Your task to perform on an android device: Go to accessibility settings Image 0: 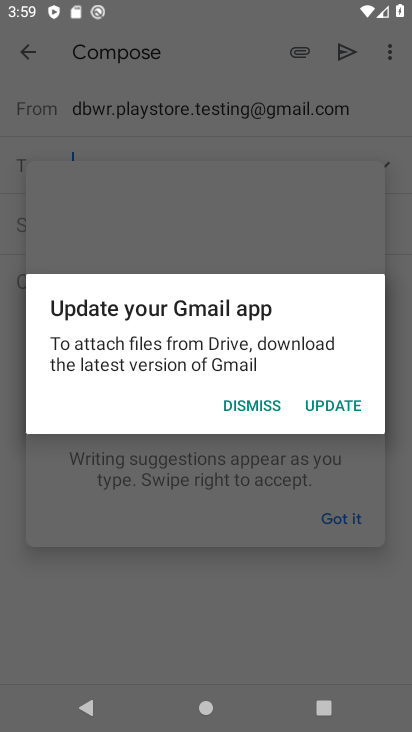
Step 0: press home button
Your task to perform on an android device: Go to accessibility settings Image 1: 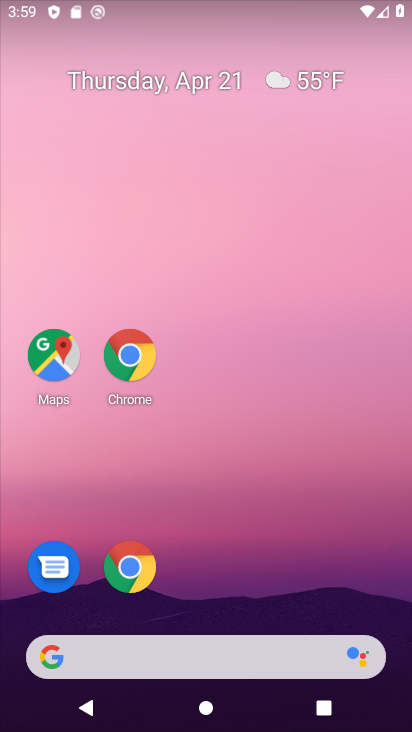
Step 1: drag from (258, 497) to (151, 92)
Your task to perform on an android device: Go to accessibility settings Image 2: 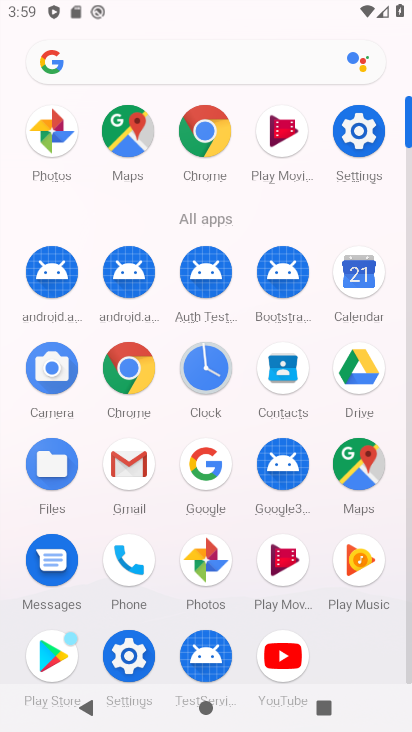
Step 2: click (365, 131)
Your task to perform on an android device: Go to accessibility settings Image 3: 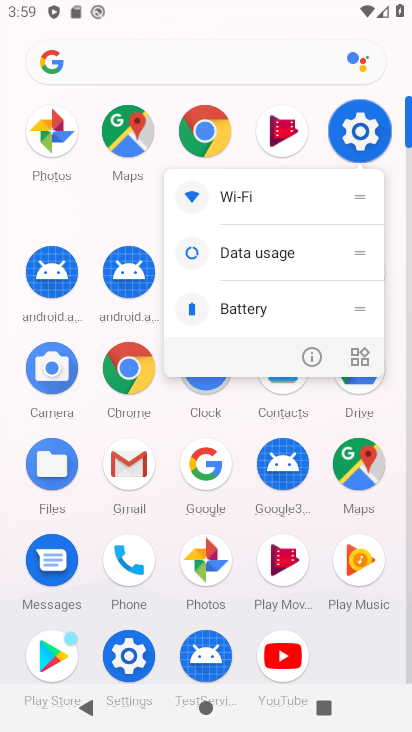
Step 3: click (365, 131)
Your task to perform on an android device: Go to accessibility settings Image 4: 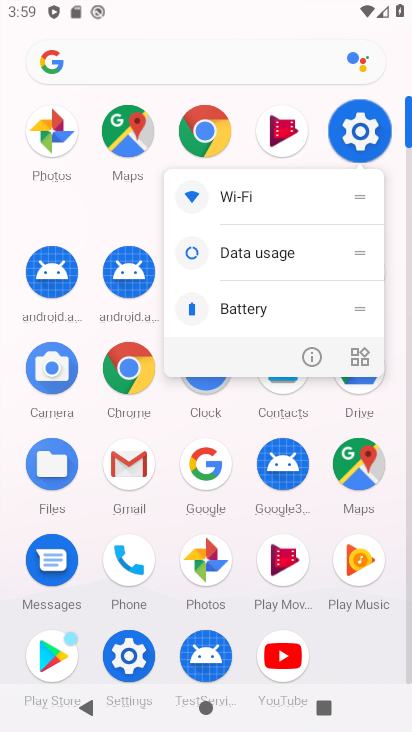
Step 4: click (363, 129)
Your task to perform on an android device: Go to accessibility settings Image 5: 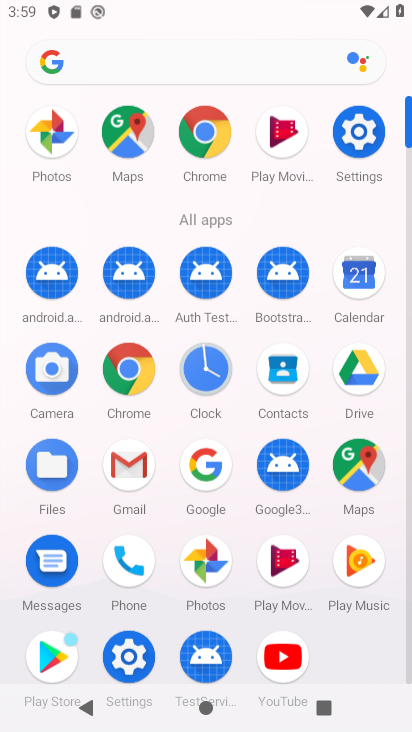
Step 5: click (359, 127)
Your task to perform on an android device: Go to accessibility settings Image 6: 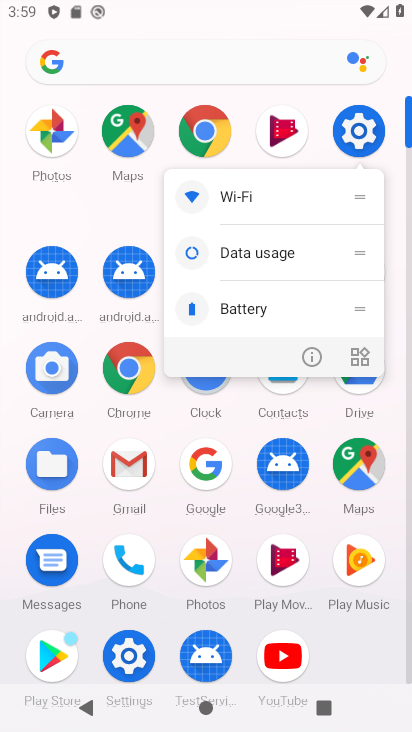
Step 6: drag from (361, 128) to (321, 111)
Your task to perform on an android device: Go to accessibility settings Image 7: 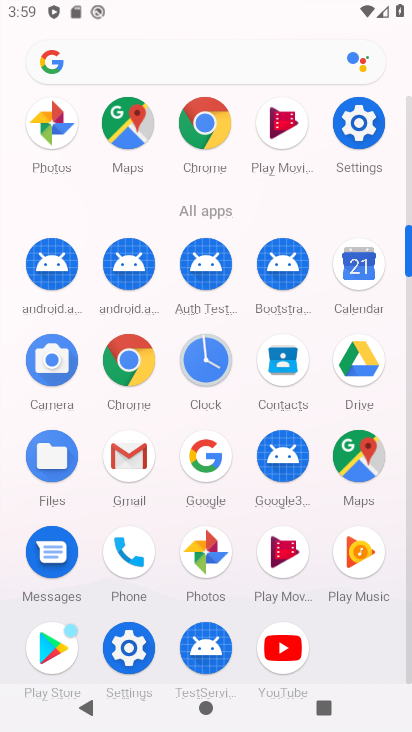
Step 7: click (356, 127)
Your task to perform on an android device: Go to accessibility settings Image 8: 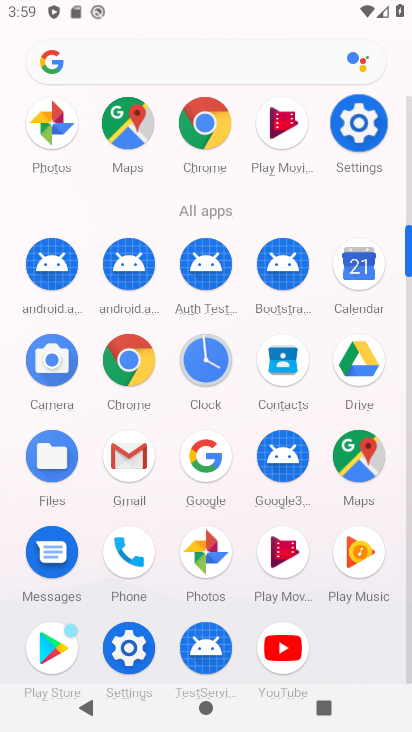
Step 8: click (357, 126)
Your task to perform on an android device: Go to accessibility settings Image 9: 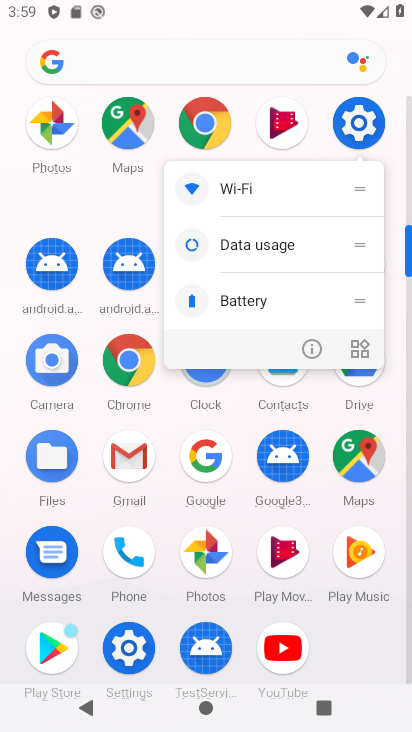
Step 9: click (357, 126)
Your task to perform on an android device: Go to accessibility settings Image 10: 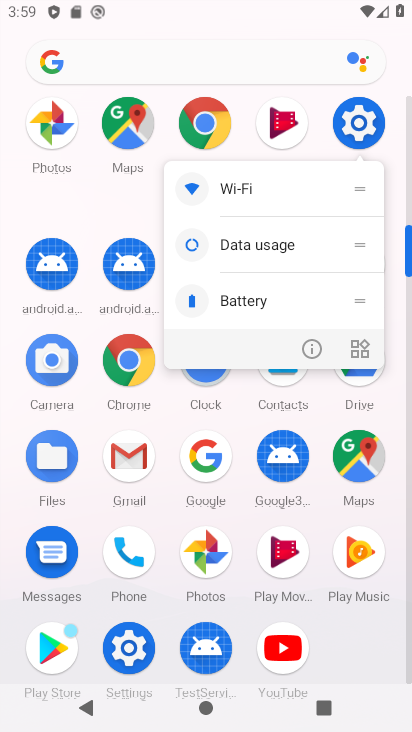
Step 10: click (357, 126)
Your task to perform on an android device: Go to accessibility settings Image 11: 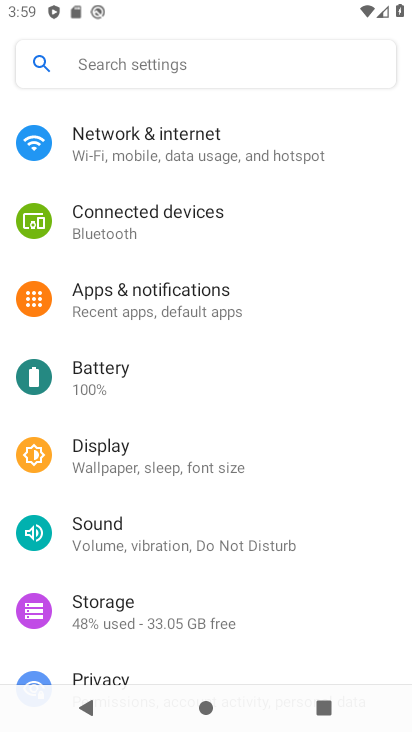
Step 11: click (358, 125)
Your task to perform on an android device: Go to accessibility settings Image 12: 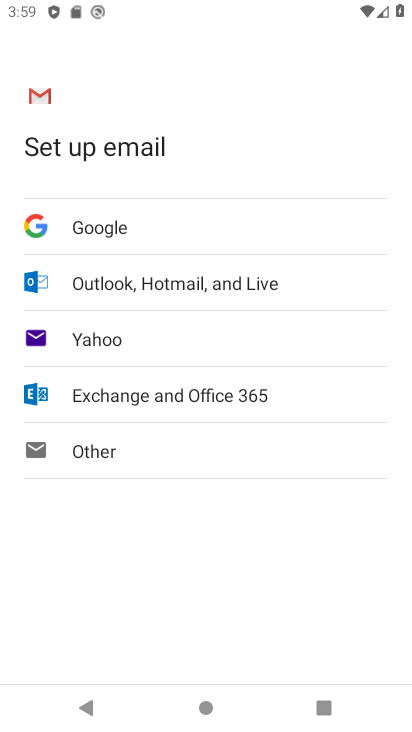
Step 12: press back button
Your task to perform on an android device: Go to accessibility settings Image 13: 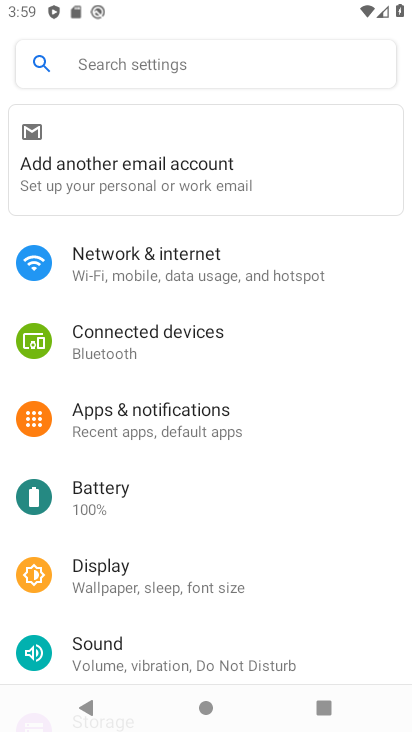
Step 13: drag from (221, 629) to (163, 175)
Your task to perform on an android device: Go to accessibility settings Image 14: 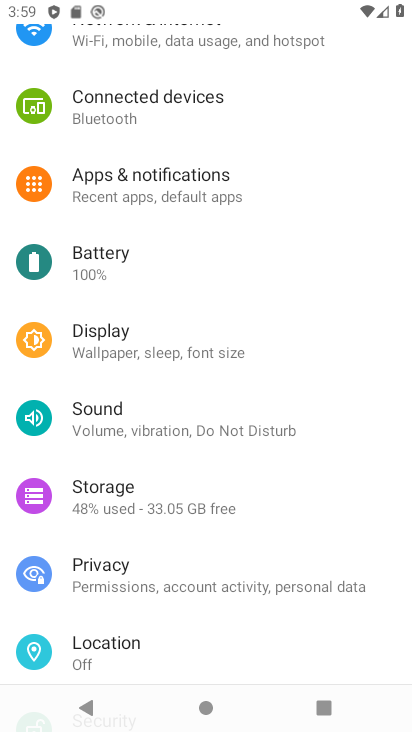
Step 14: click (205, 100)
Your task to perform on an android device: Go to accessibility settings Image 15: 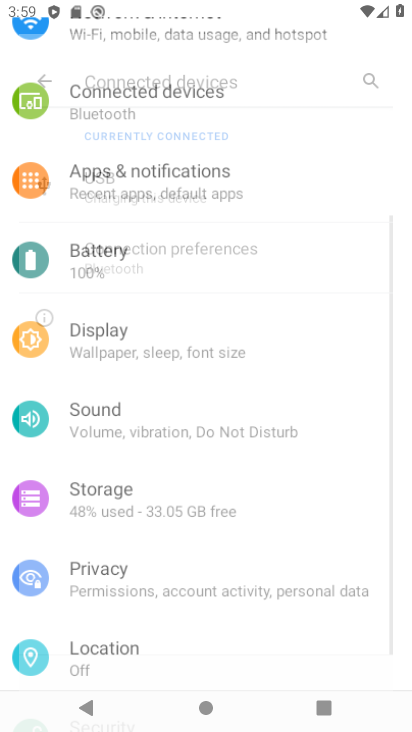
Step 15: drag from (180, 258) to (180, 27)
Your task to perform on an android device: Go to accessibility settings Image 16: 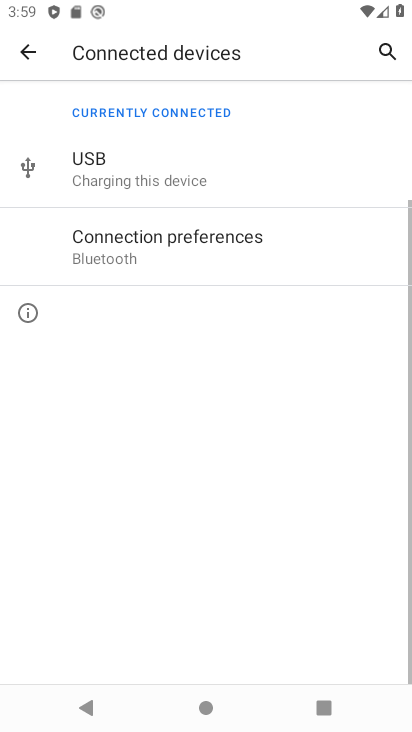
Step 16: click (18, 48)
Your task to perform on an android device: Go to accessibility settings Image 17: 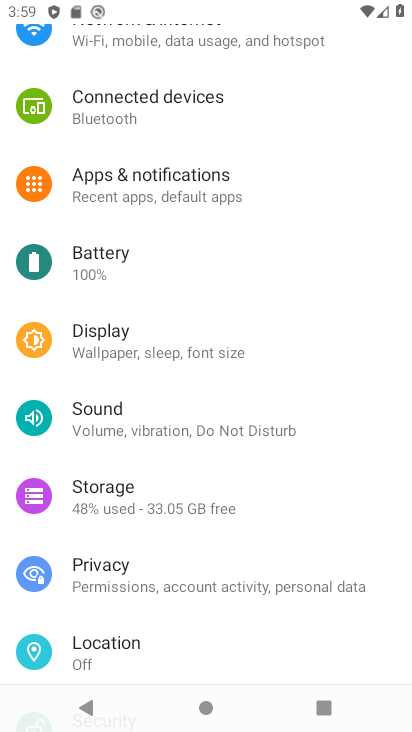
Step 17: drag from (176, 506) to (201, 103)
Your task to perform on an android device: Go to accessibility settings Image 18: 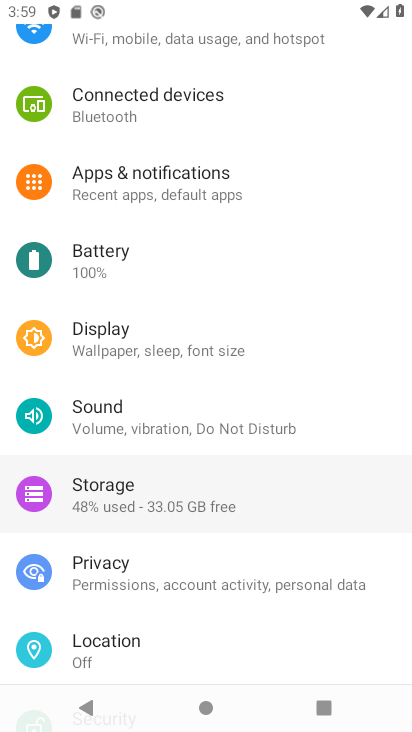
Step 18: drag from (225, 500) to (188, 134)
Your task to perform on an android device: Go to accessibility settings Image 19: 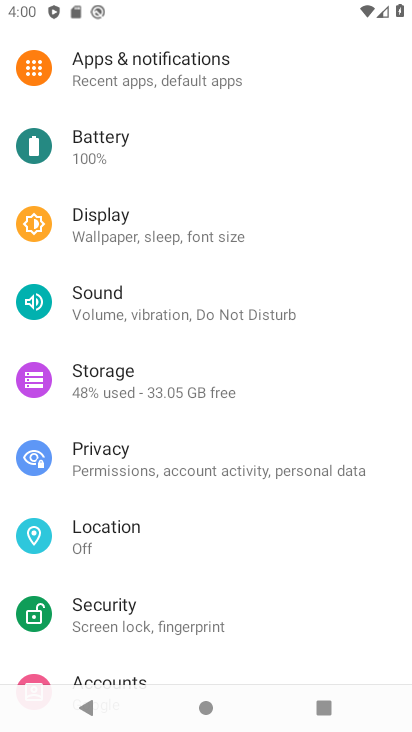
Step 19: drag from (145, 516) to (94, 101)
Your task to perform on an android device: Go to accessibility settings Image 20: 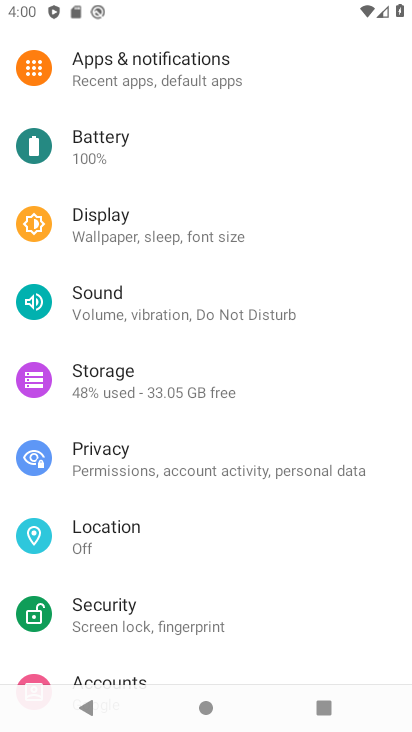
Step 20: drag from (151, 398) to (102, 52)
Your task to perform on an android device: Go to accessibility settings Image 21: 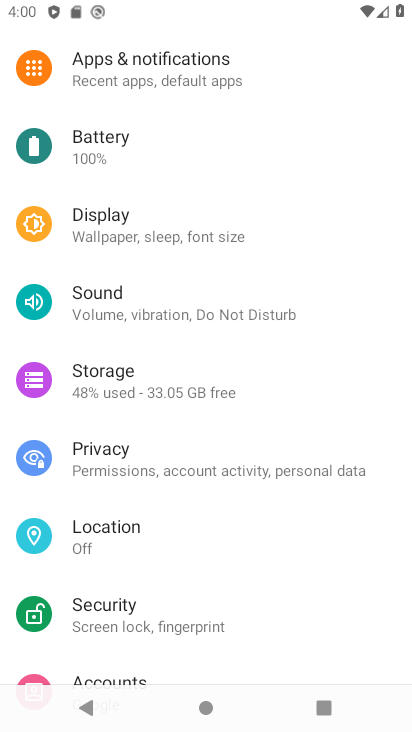
Step 21: drag from (195, 467) to (211, 53)
Your task to perform on an android device: Go to accessibility settings Image 22: 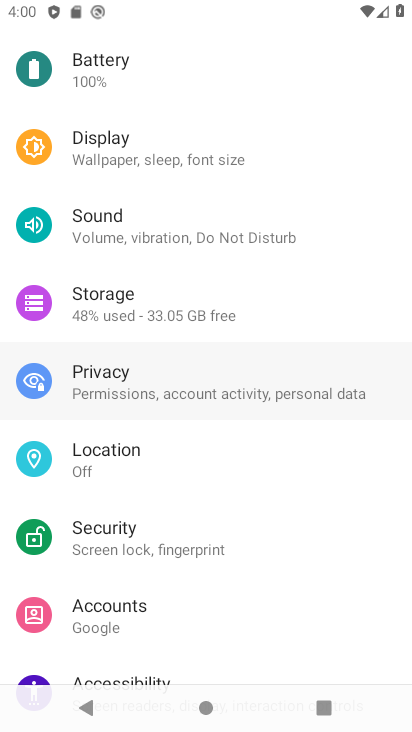
Step 22: drag from (209, 544) to (176, 45)
Your task to perform on an android device: Go to accessibility settings Image 23: 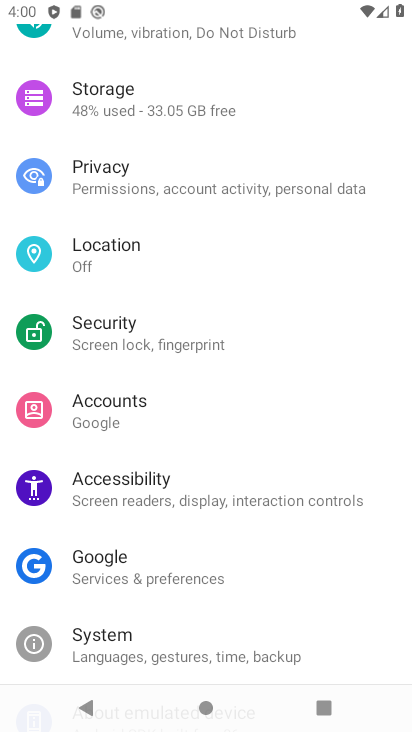
Step 23: drag from (185, 294) to (170, 16)
Your task to perform on an android device: Go to accessibility settings Image 24: 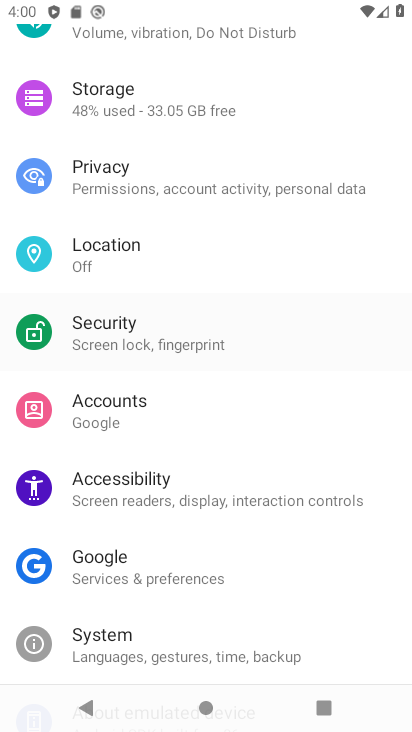
Step 24: drag from (148, 555) to (155, 0)
Your task to perform on an android device: Go to accessibility settings Image 25: 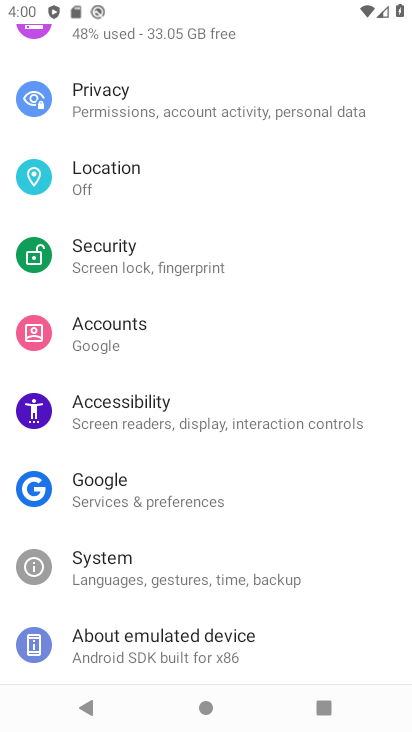
Step 25: click (115, 411)
Your task to perform on an android device: Go to accessibility settings Image 26: 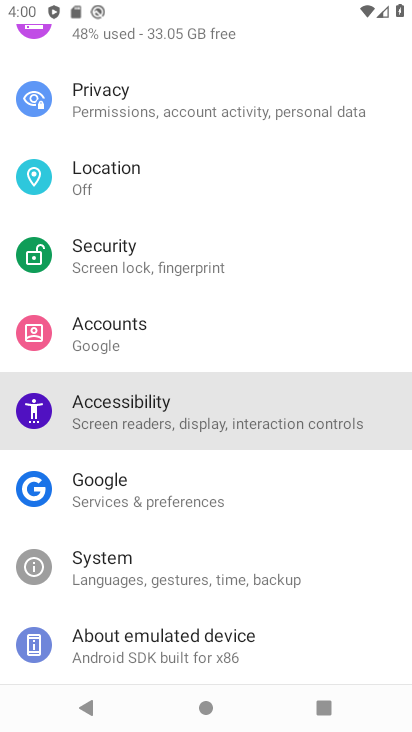
Step 26: click (115, 411)
Your task to perform on an android device: Go to accessibility settings Image 27: 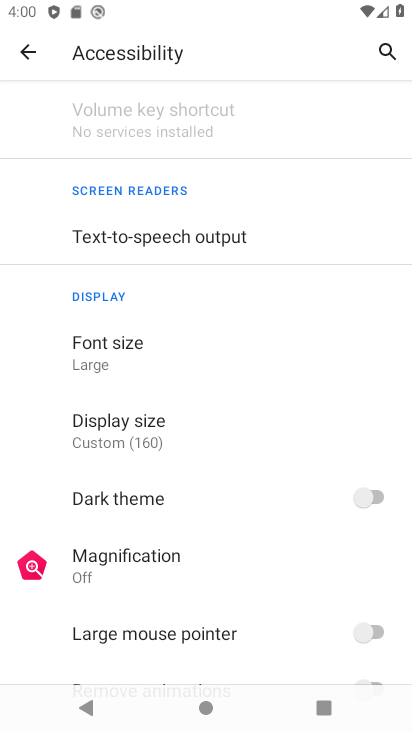
Step 27: task complete